Your task to perform on an android device: When is my next meeting? Image 0: 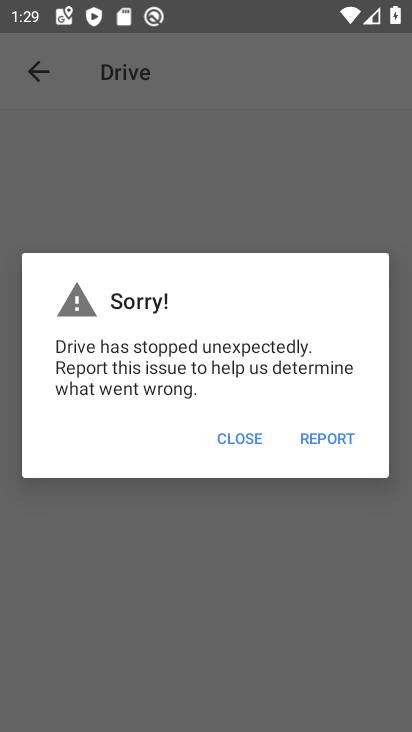
Step 0: press back button
Your task to perform on an android device: When is my next meeting? Image 1: 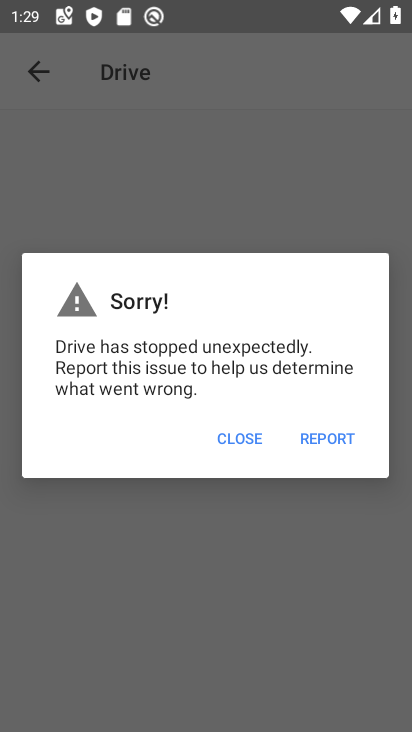
Step 1: press home button
Your task to perform on an android device: When is my next meeting? Image 2: 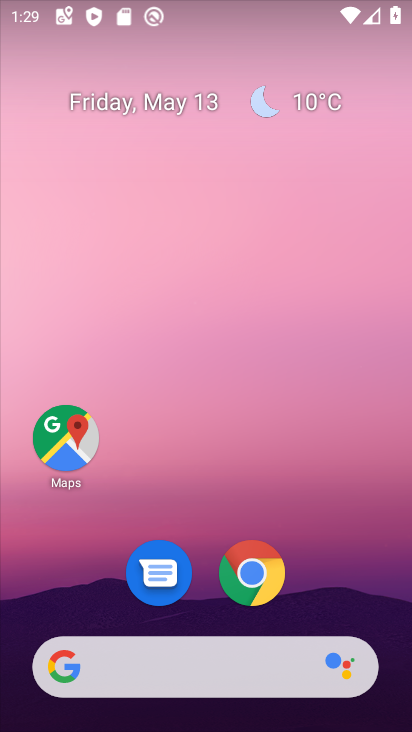
Step 2: drag from (344, 543) to (272, 24)
Your task to perform on an android device: When is my next meeting? Image 3: 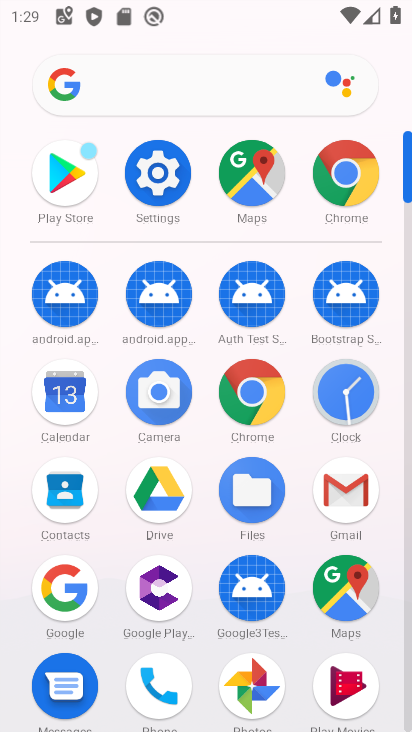
Step 3: click (59, 390)
Your task to perform on an android device: When is my next meeting? Image 4: 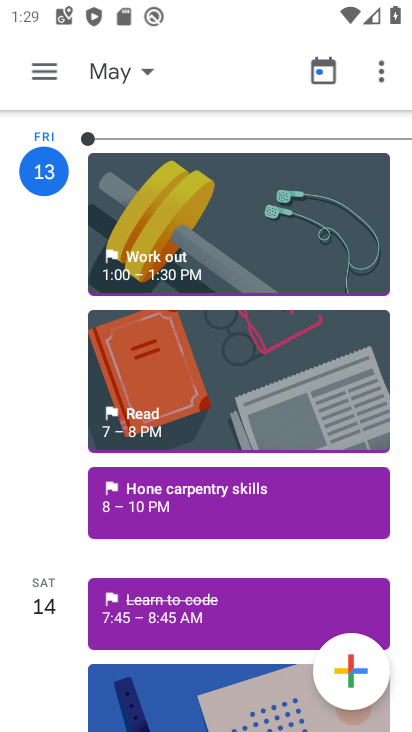
Step 4: click (37, 73)
Your task to perform on an android device: When is my next meeting? Image 5: 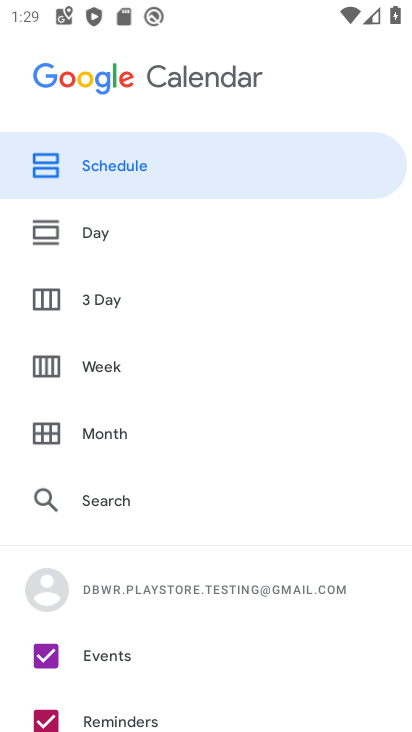
Step 5: click (133, 156)
Your task to perform on an android device: When is my next meeting? Image 6: 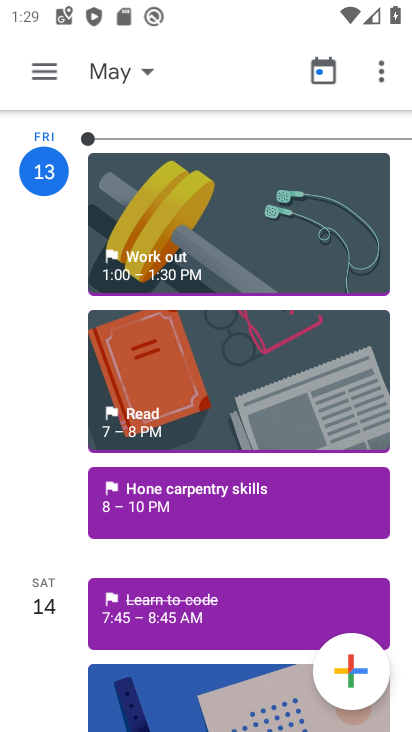
Step 6: task complete